Your task to perform on an android device: Do I have any events today? Image 0: 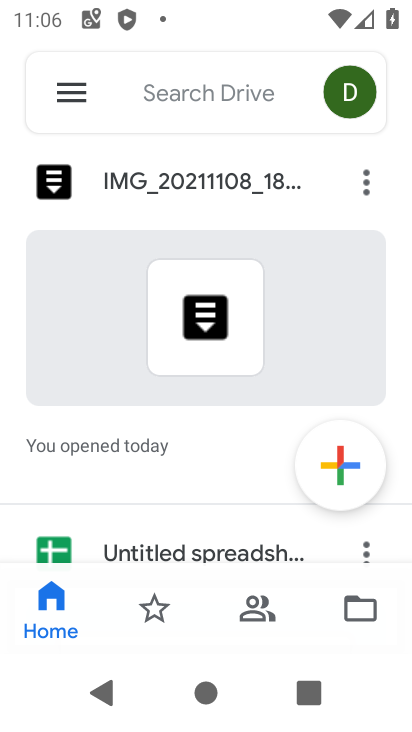
Step 0: press home button
Your task to perform on an android device: Do I have any events today? Image 1: 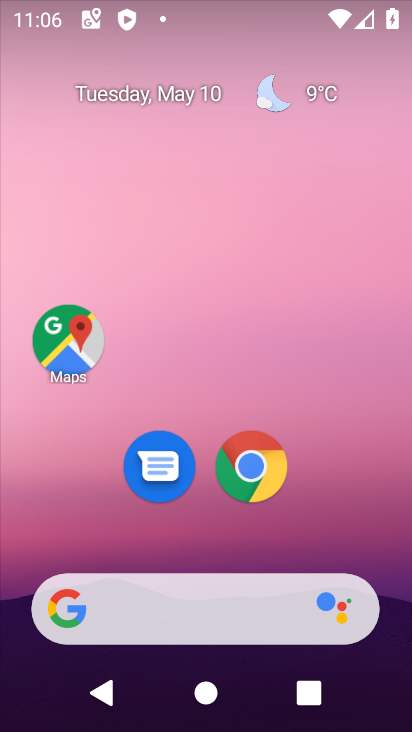
Step 1: drag from (248, 545) to (194, 45)
Your task to perform on an android device: Do I have any events today? Image 2: 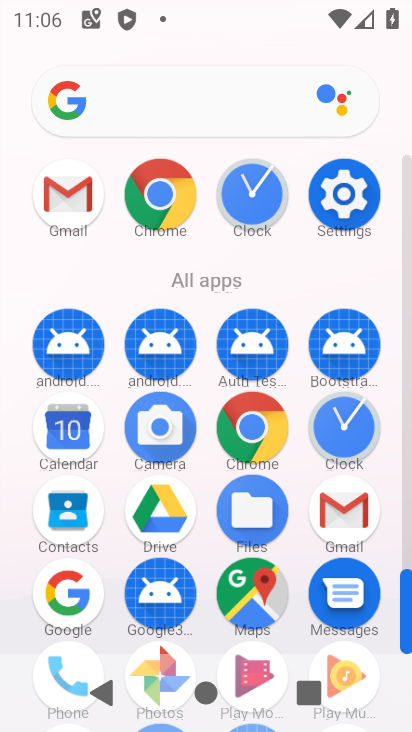
Step 2: click (76, 441)
Your task to perform on an android device: Do I have any events today? Image 3: 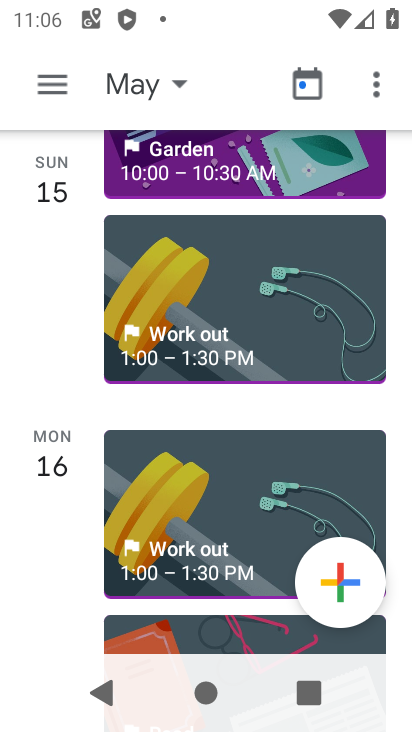
Step 3: click (127, 93)
Your task to perform on an android device: Do I have any events today? Image 4: 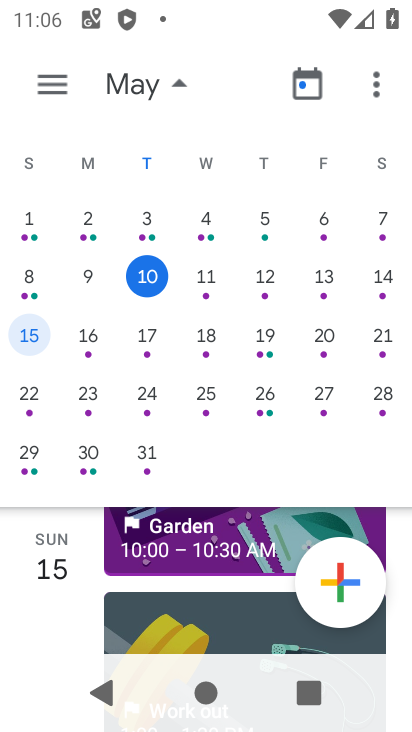
Step 4: click (151, 282)
Your task to perform on an android device: Do I have any events today? Image 5: 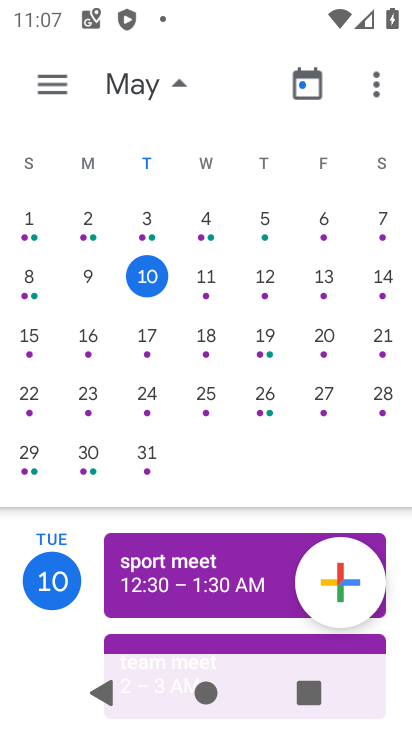
Step 5: task complete